Your task to perform on an android device: clear history in the chrome app Image 0: 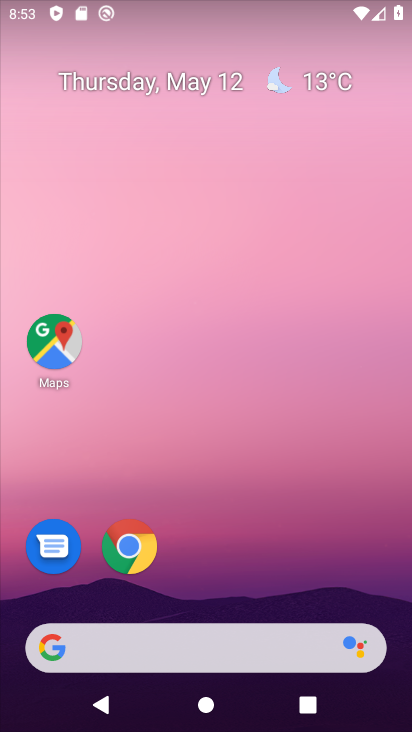
Step 0: click (134, 551)
Your task to perform on an android device: clear history in the chrome app Image 1: 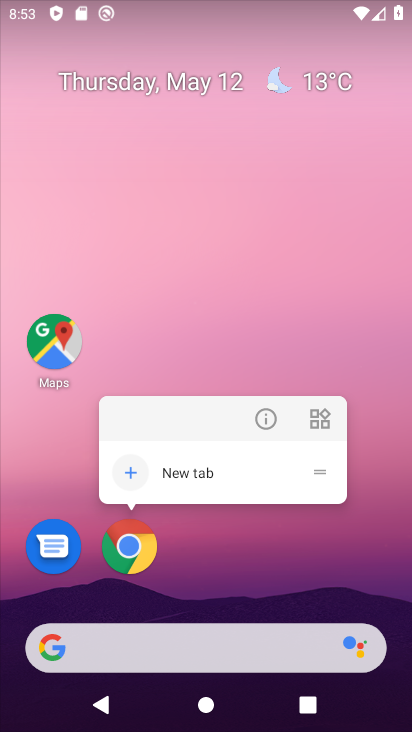
Step 1: click (126, 536)
Your task to perform on an android device: clear history in the chrome app Image 2: 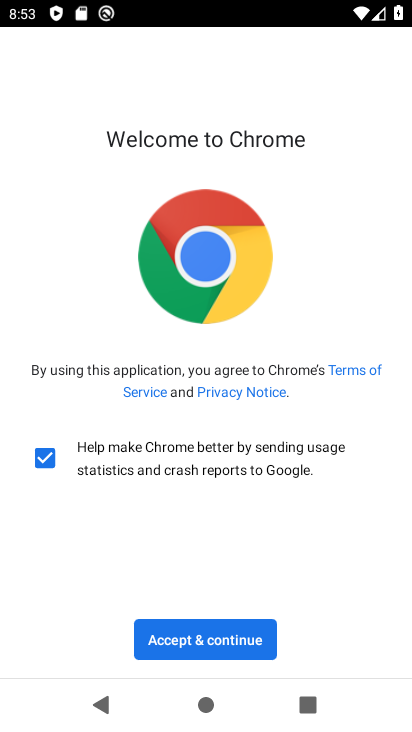
Step 2: click (227, 635)
Your task to perform on an android device: clear history in the chrome app Image 3: 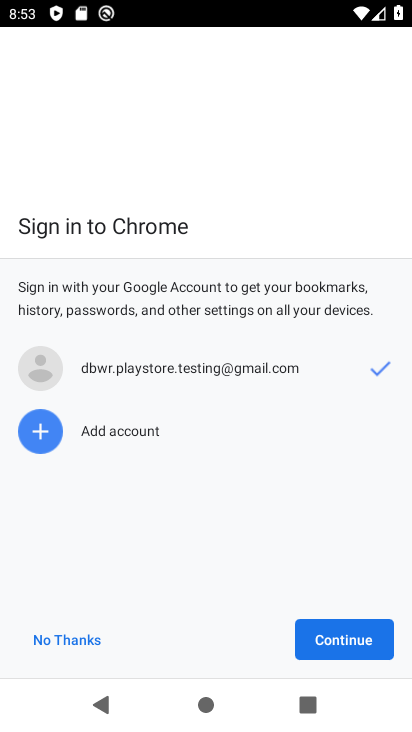
Step 3: click (365, 643)
Your task to perform on an android device: clear history in the chrome app Image 4: 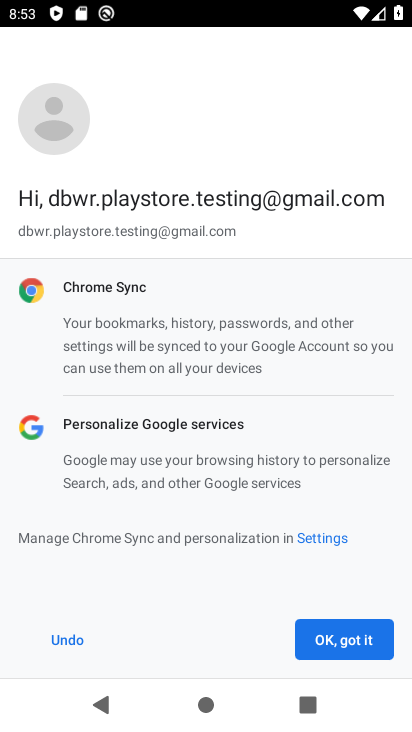
Step 4: click (365, 643)
Your task to perform on an android device: clear history in the chrome app Image 5: 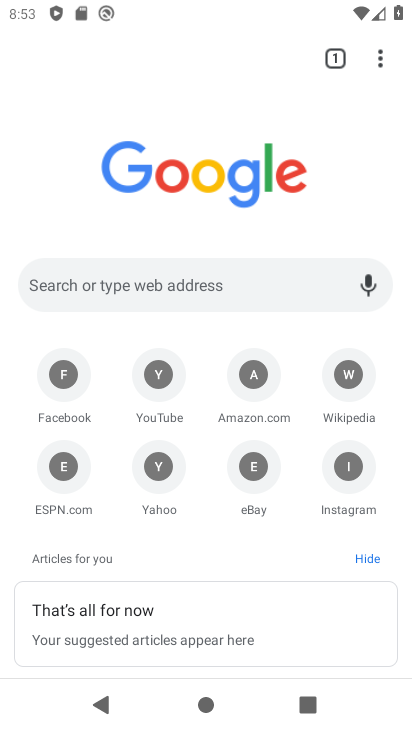
Step 5: task complete